Your task to perform on an android device: open chrome and create a bookmark for the current page Image 0: 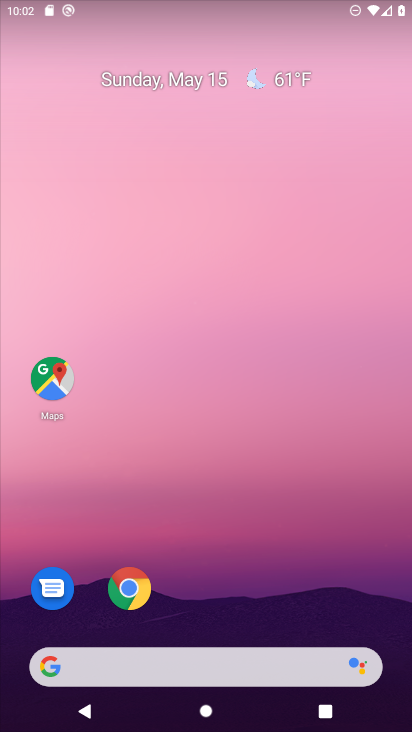
Step 0: click (125, 586)
Your task to perform on an android device: open chrome and create a bookmark for the current page Image 1: 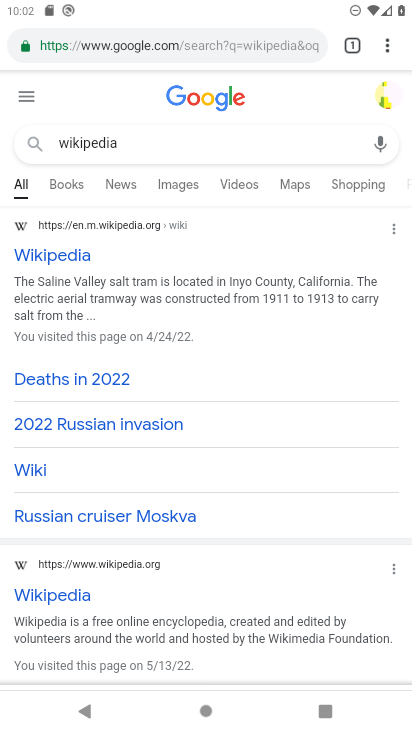
Step 1: click (388, 49)
Your task to perform on an android device: open chrome and create a bookmark for the current page Image 2: 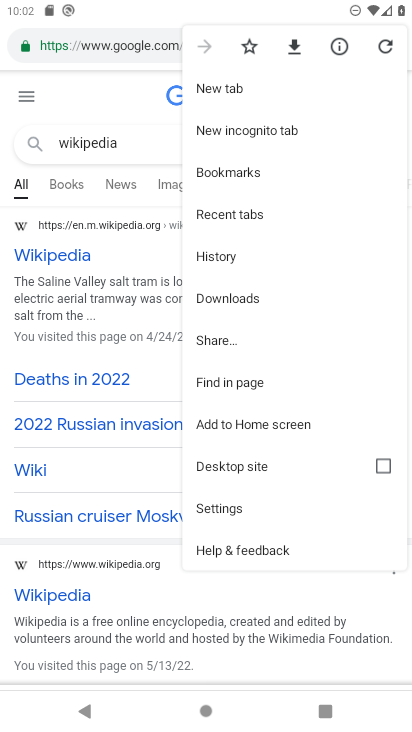
Step 2: click (246, 49)
Your task to perform on an android device: open chrome and create a bookmark for the current page Image 3: 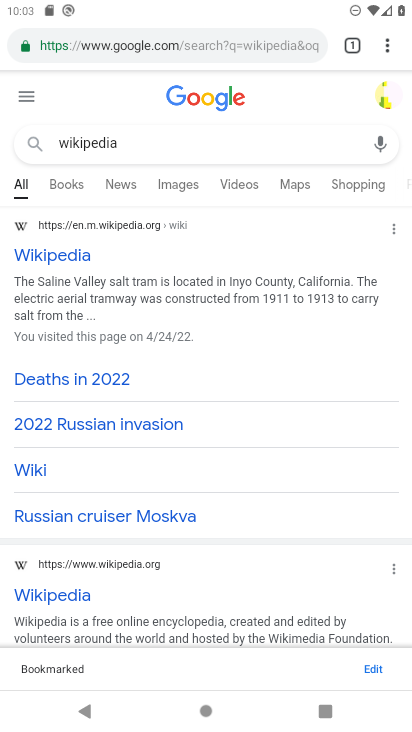
Step 3: task complete